Your task to perform on an android device: turn on sleep mode Image 0: 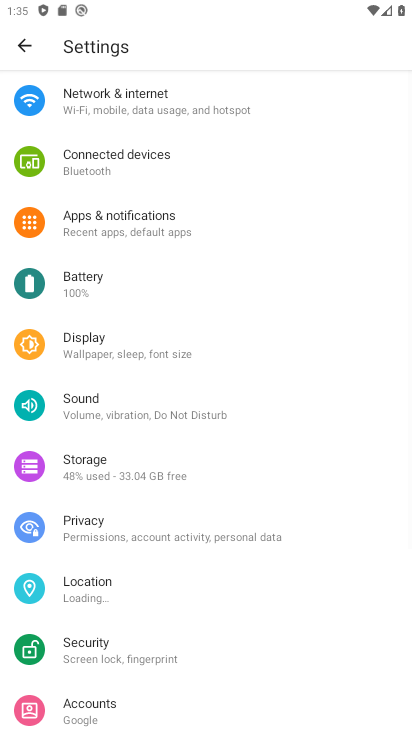
Step 0: press home button
Your task to perform on an android device: turn on sleep mode Image 1: 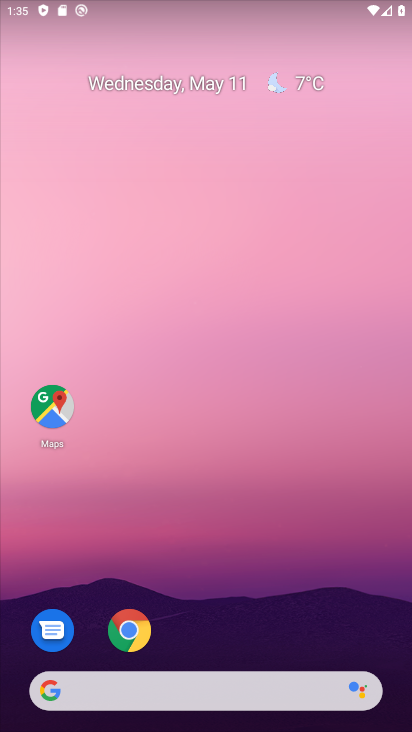
Step 1: drag from (357, 610) to (304, 63)
Your task to perform on an android device: turn on sleep mode Image 2: 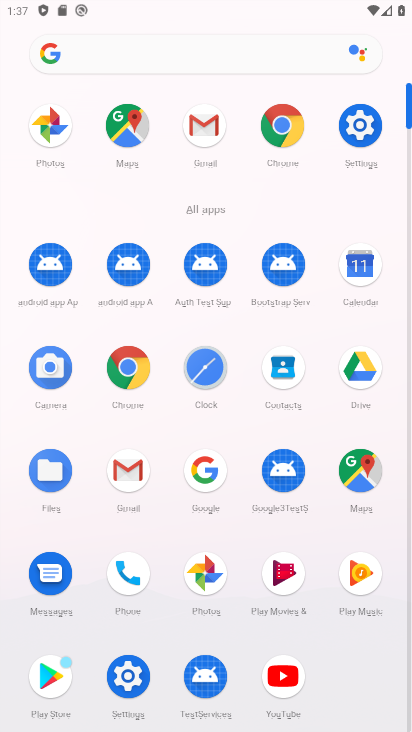
Step 2: click (129, 688)
Your task to perform on an android device: turn on sleep mode Image 3: 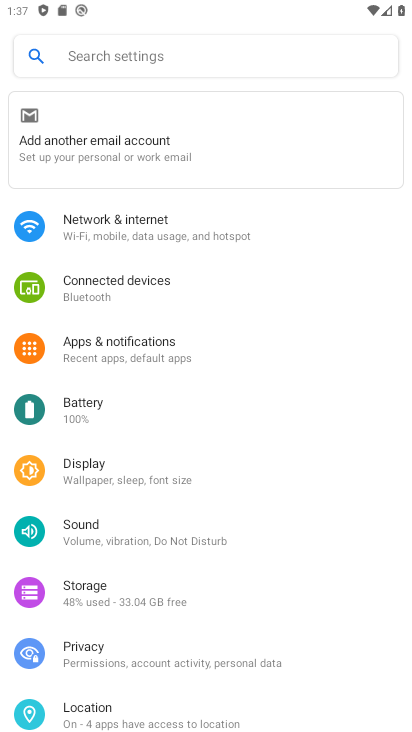
Step 3: task complete